Your task to perform on an android device: Go to accessibility settings Image 0: 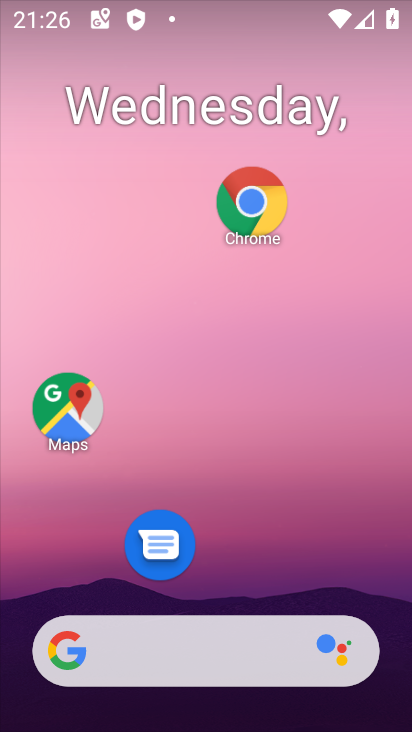
Step 0: drag from (225, 593) to (215, 80)
Your task to perform on an android device: Go to accessibility settings Image 1: 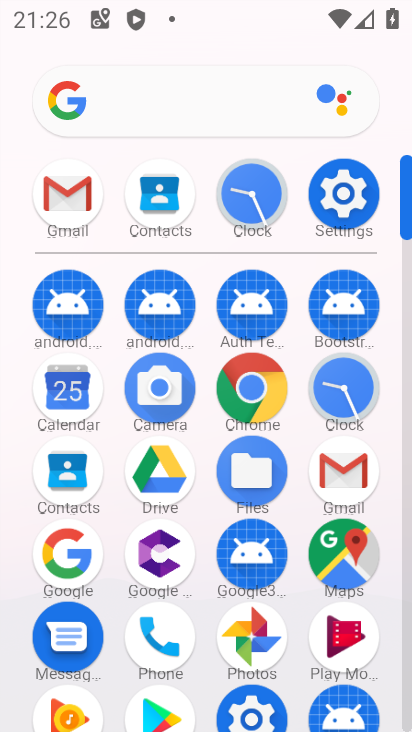
Step 1: click (353, 197)
Your task to perform on an android device: Go to accessibility settings Image 2: 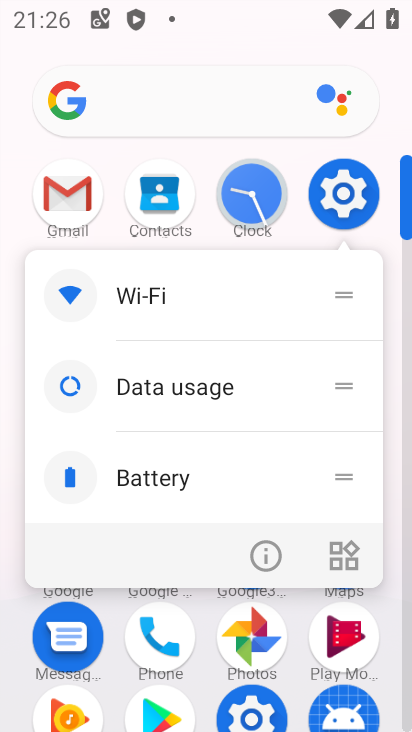
Step 2: click (341, 193)
Your task to perform on an android device: Go to accessibility settings Image 3: 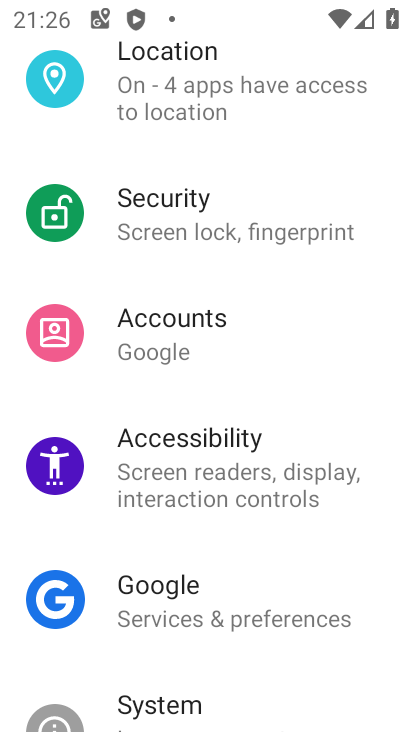
Step 3: click (205, 468)
Your task to perform on an android device: Go to accessibility settings Image 4: 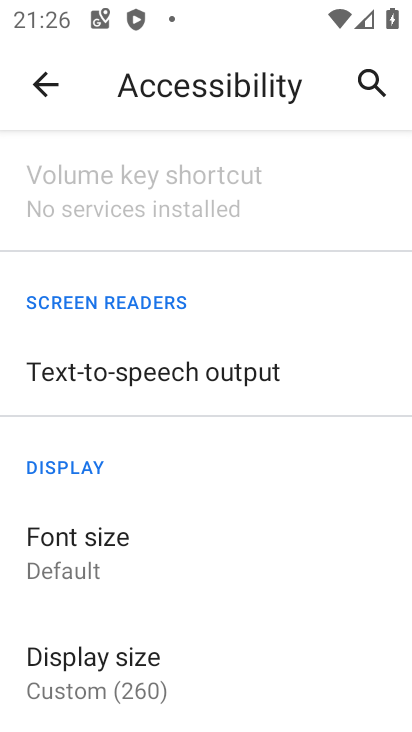
Step 4: task complete